Your task to perform on an android device: Turn off the flashlight Image 0: 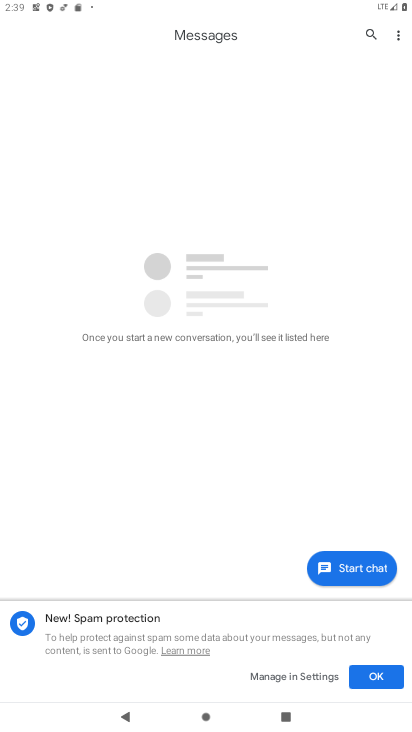
Step 0: press home button
Your task to perform on an android device: Turn off the flashlight Image 1: 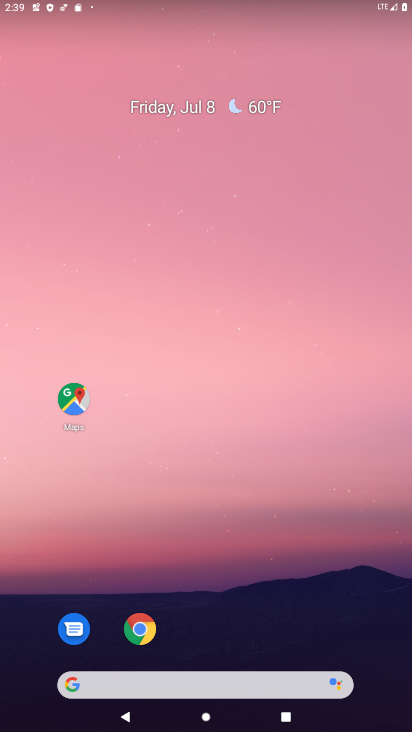
Step 1: drag from (202, 612) to (160, 259)
Your task to perform on an android device: Turn off the flashlight Image 2: 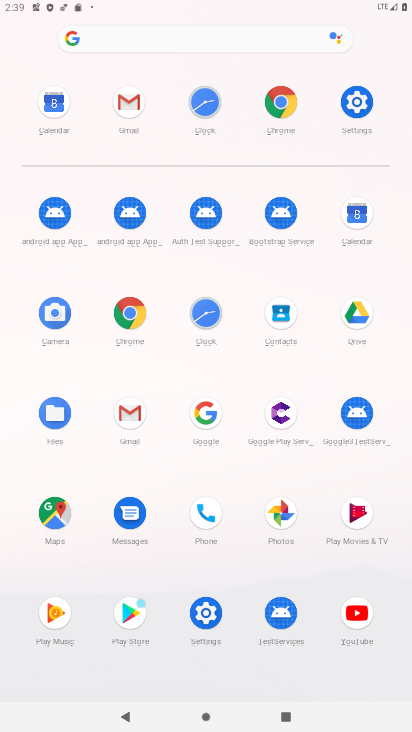
Step 2: click (362, 114)
Your task to perform on an android device: Turn off the flashlight Image 3: 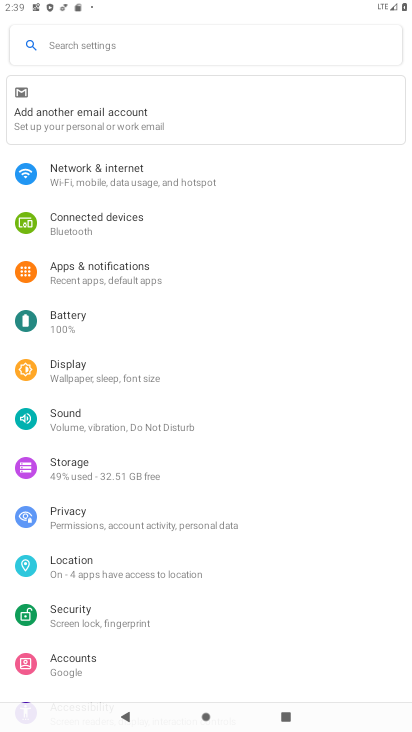
Step 3: task complete